Your task to perform on an android device: Go to display settings Image 0: 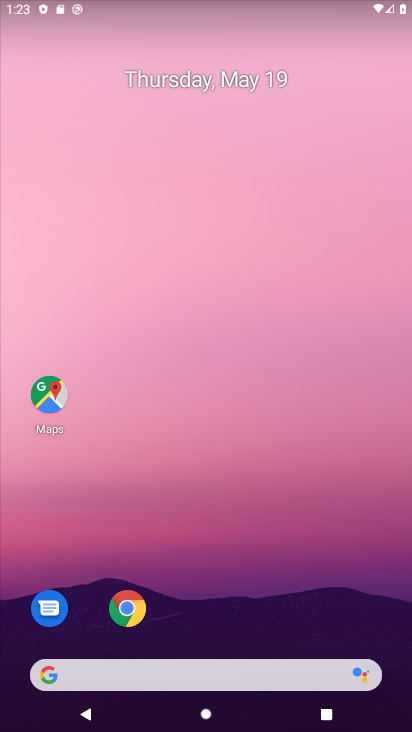
Step 0: drag from (306, 561) to (204, 74)
Your task to perform on an android device: Go to display settings Image 1: 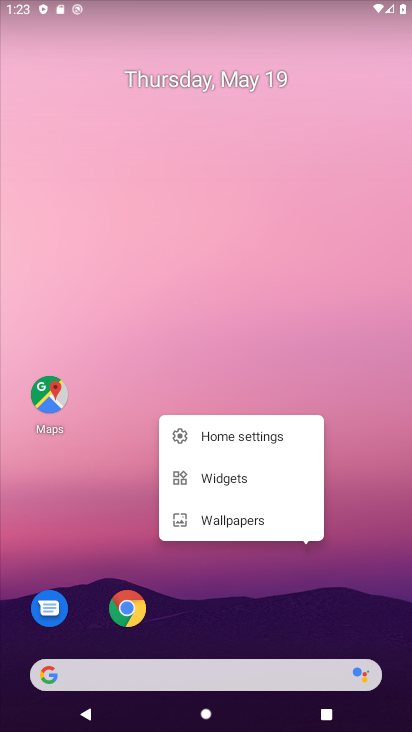
Step 1: click (335, 629)
Your task to perform on an android device: Go to display settings Image 2: 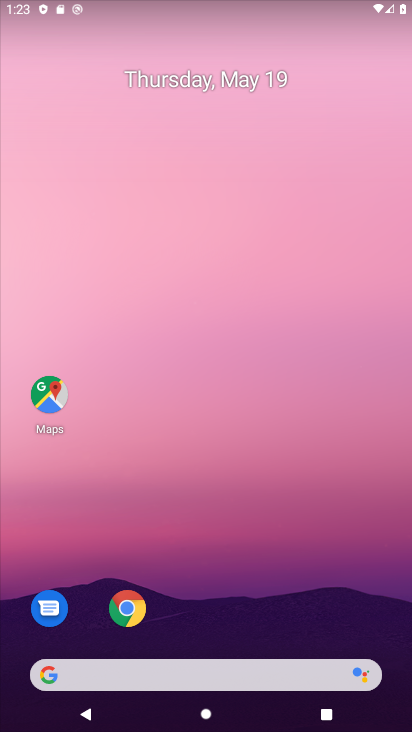
Step 2: drag from (309, 605) to (251, 74)
Your task to perform on an android device: Go to display settings Image 3: 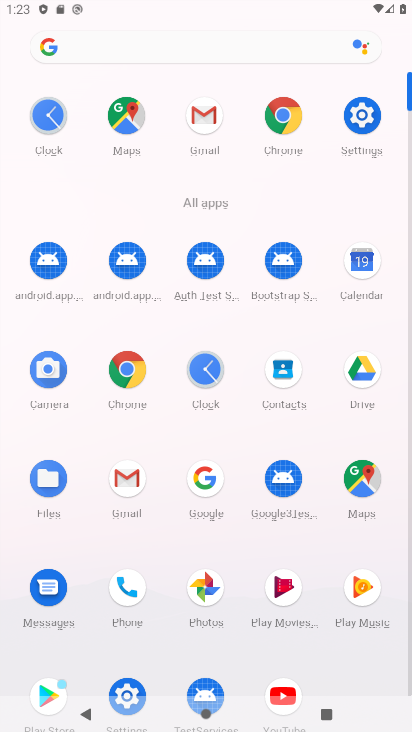
Step 3: click (372, 117)
Your task to perform on an android device: Go to display settings Image 4: 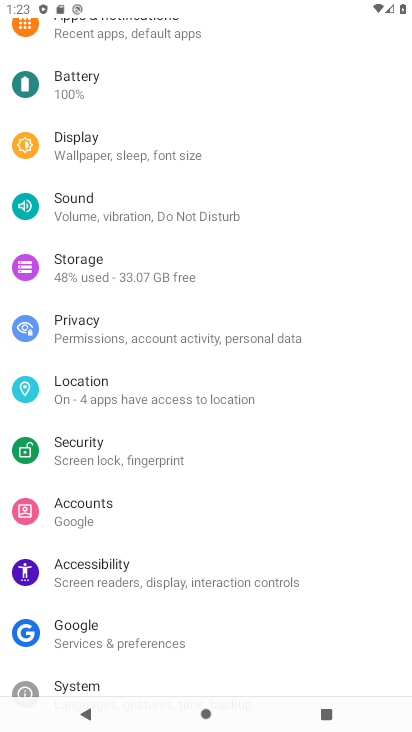
Step 4: click (150, 169)
Your task to perform on an android device: Go to display settings Image 5: 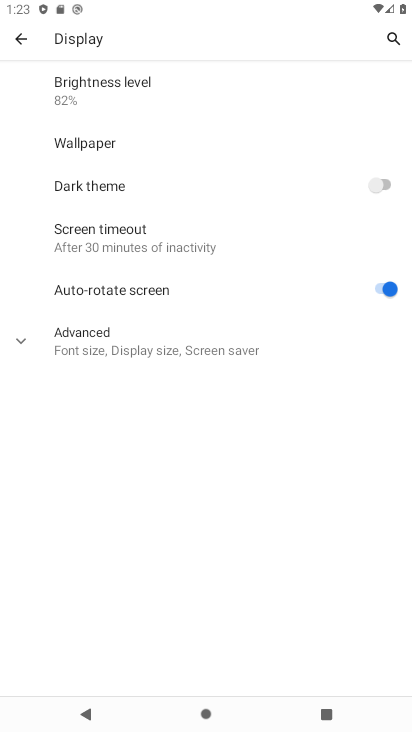
Step 5: task complete